Your task to perform on an android device: change the clock display to analog Image 0: 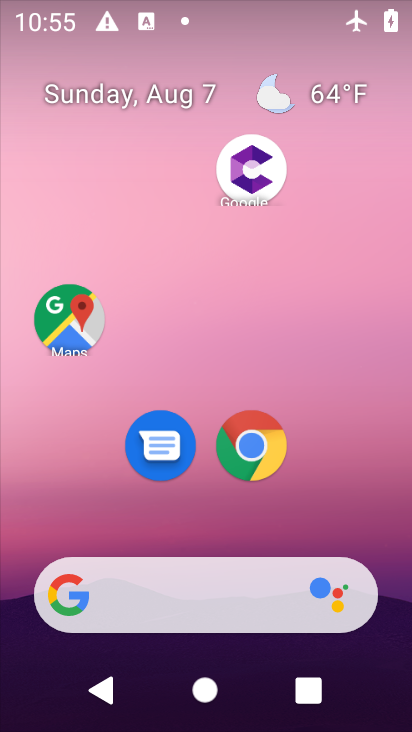
Step 0: press home button
Your task to perform on an android device: change the clock display to analog Image 1: 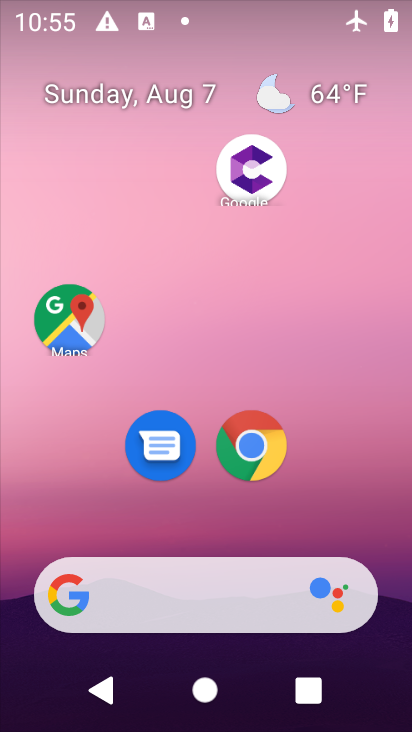
Step 1: drag from (218, 526) to (210, 69)
Your task to perform on an android device: change the clock display to analog Image 2: 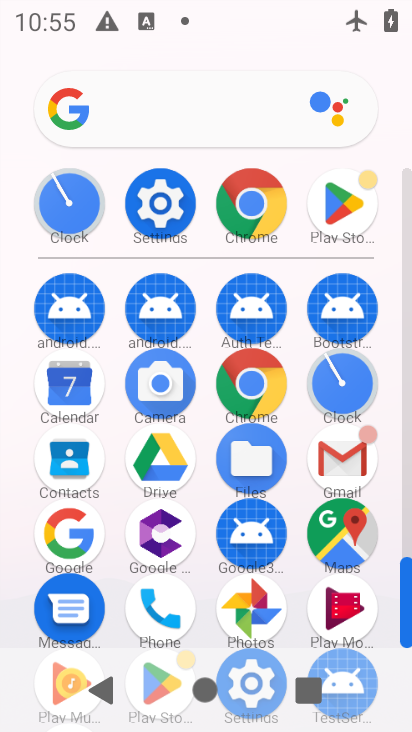
Step 2: click (67, 195)
Your task to perform on an android device: change the clock display to analog Image 3: 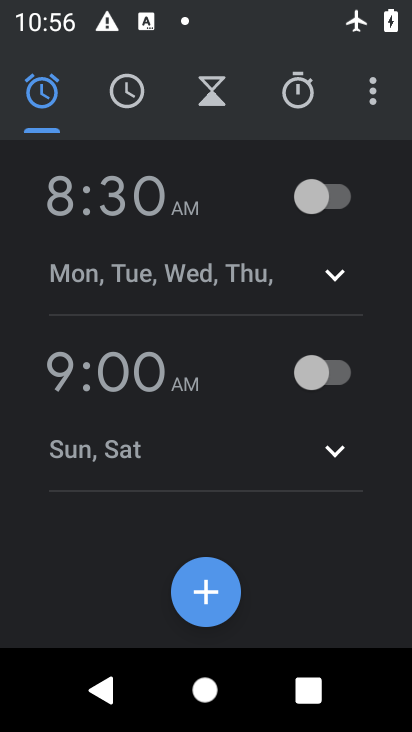
Step 3: click (374, 92)
Your task to perform on an android device: change the clock display to analog Image 4: 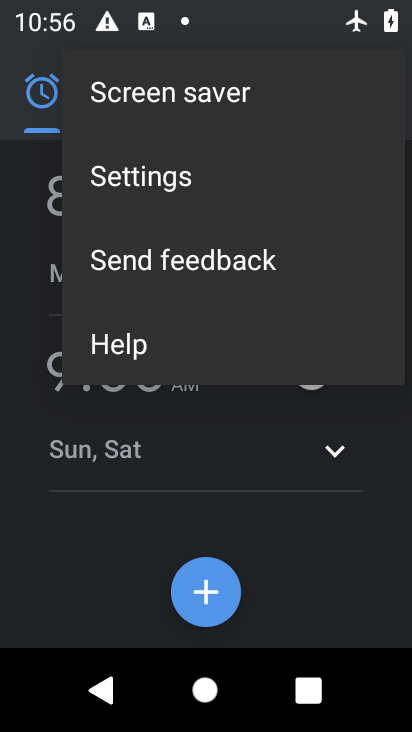
Step 4: click (206, 176)
Your task to perform on an android device: change the clock display to analog Image 5: 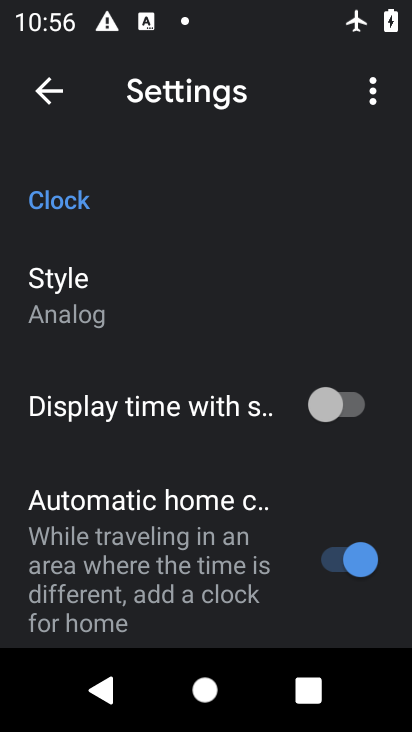
Step 5: task complete